Your task to perform on an android device: open app "Google Duo" Image 0: 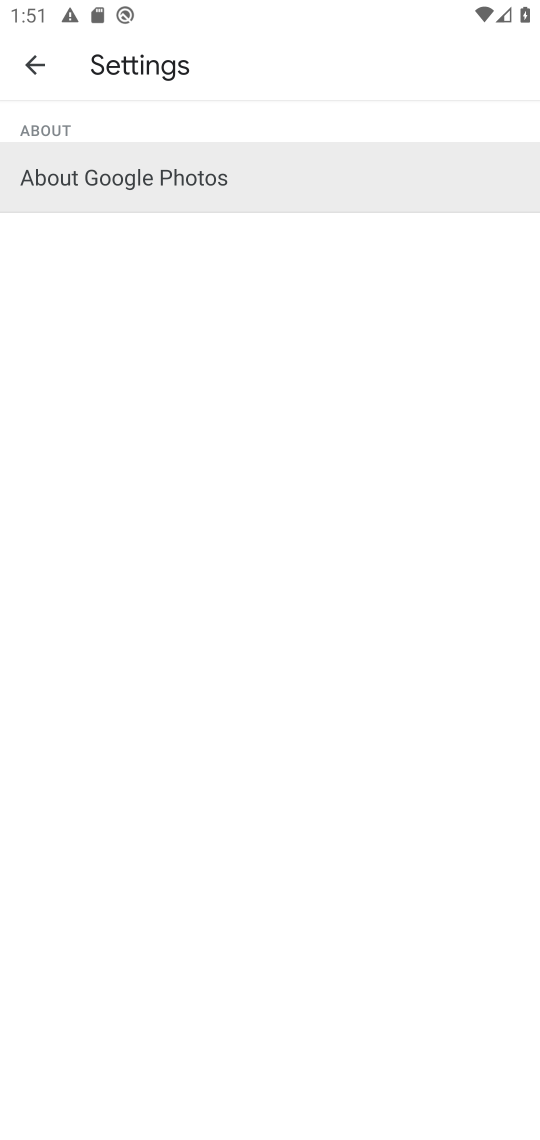
Step 0: press home button
Your task to perform on an android device: open app "Google Duo" Image 1: 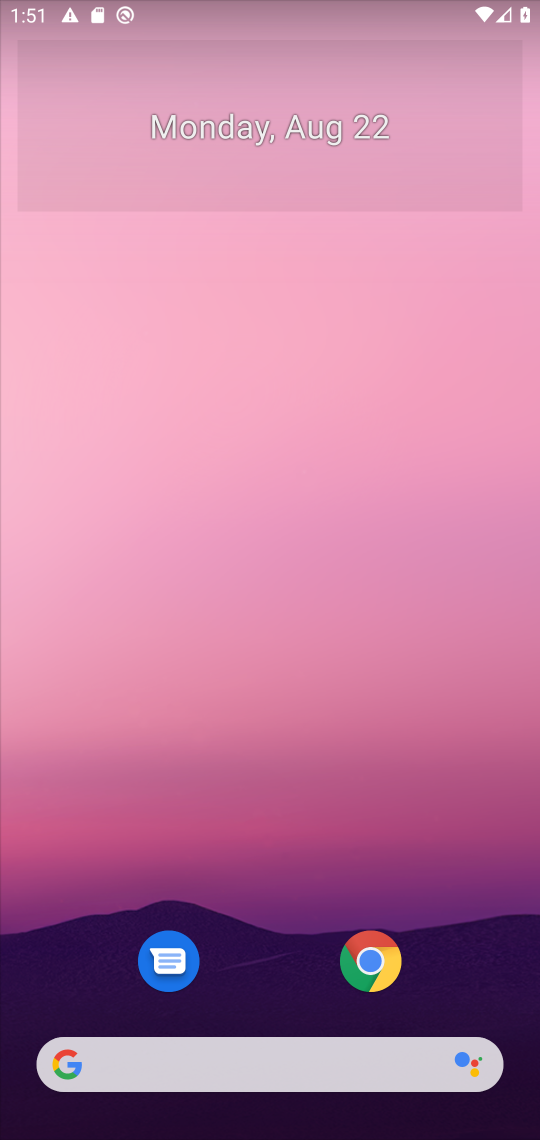
Step 1: drag from (478, 991) to (466, 123)
Your task to perform on an android device: open app "Google Duo" Image 2: 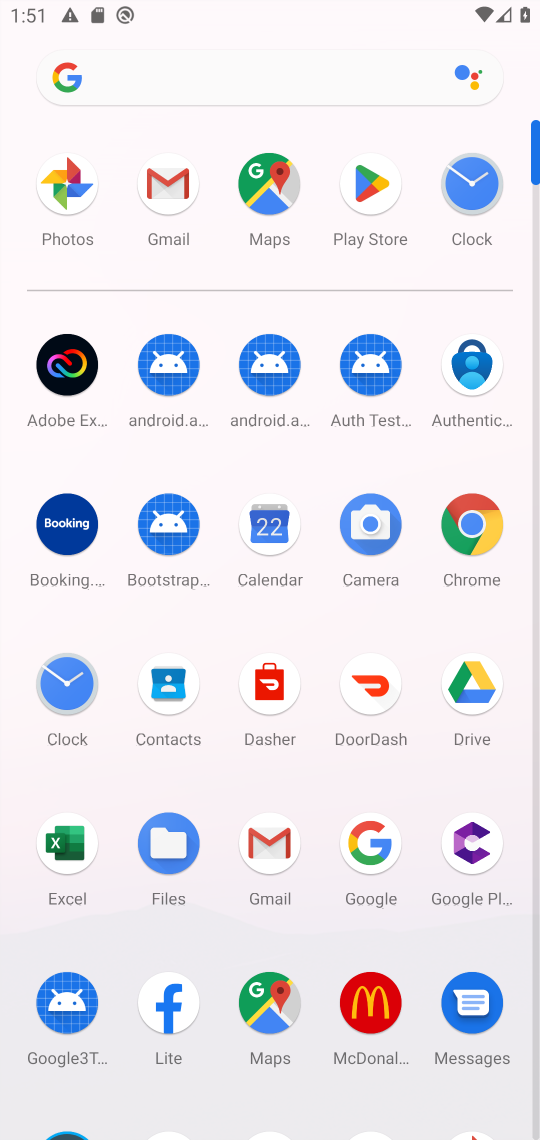
Step 2: click (375, 180)
Your task to perform on an android device: open app "Google Duo" Image 3: 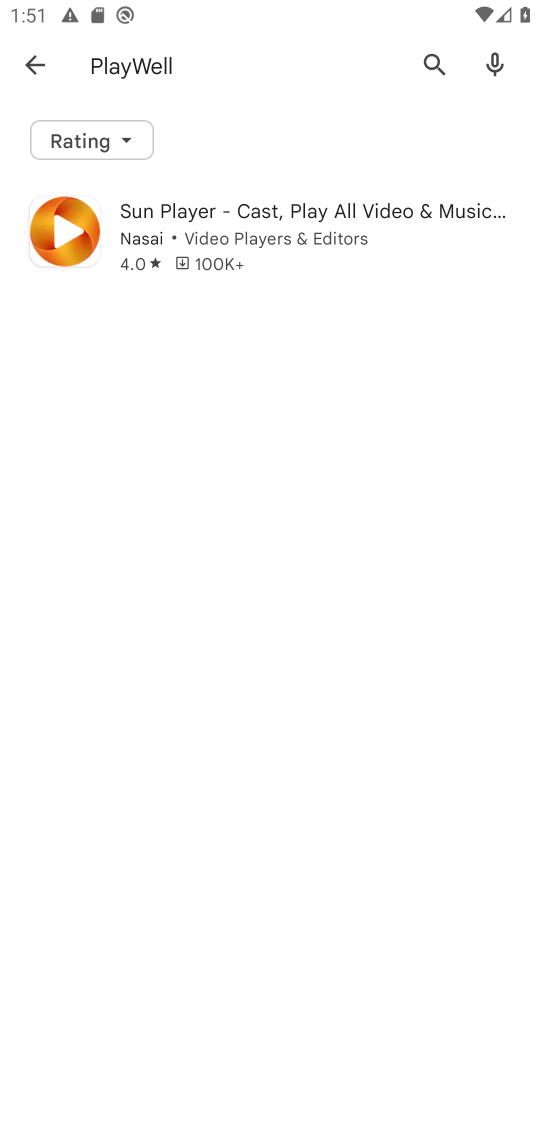
Step 3: press back button
Your task to perform on an android device: open app "Google Duo" Image 4: 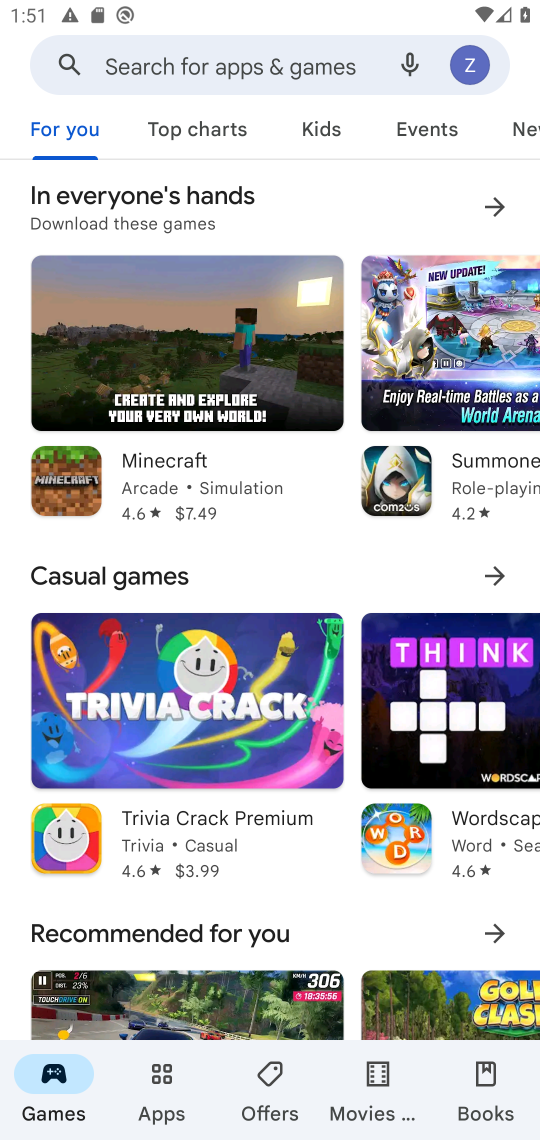
Step 4: click (243, 69)
Your task to perform on an android device: open app "Google Duo" Image 5: 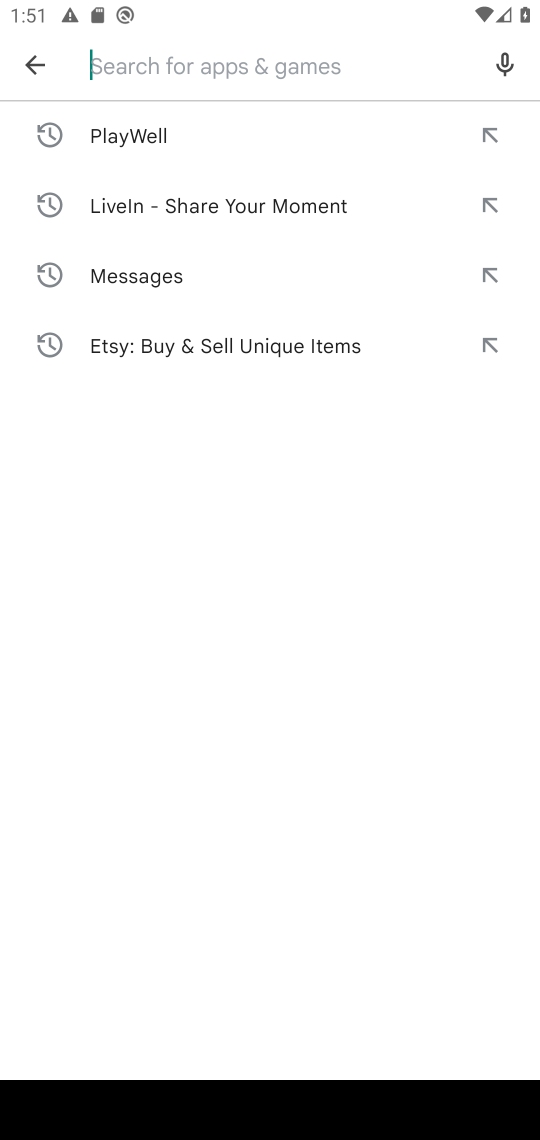
Step 5: type "Google Duo"
Your task to perform on an android device: open app "Google Duo" Image 6: 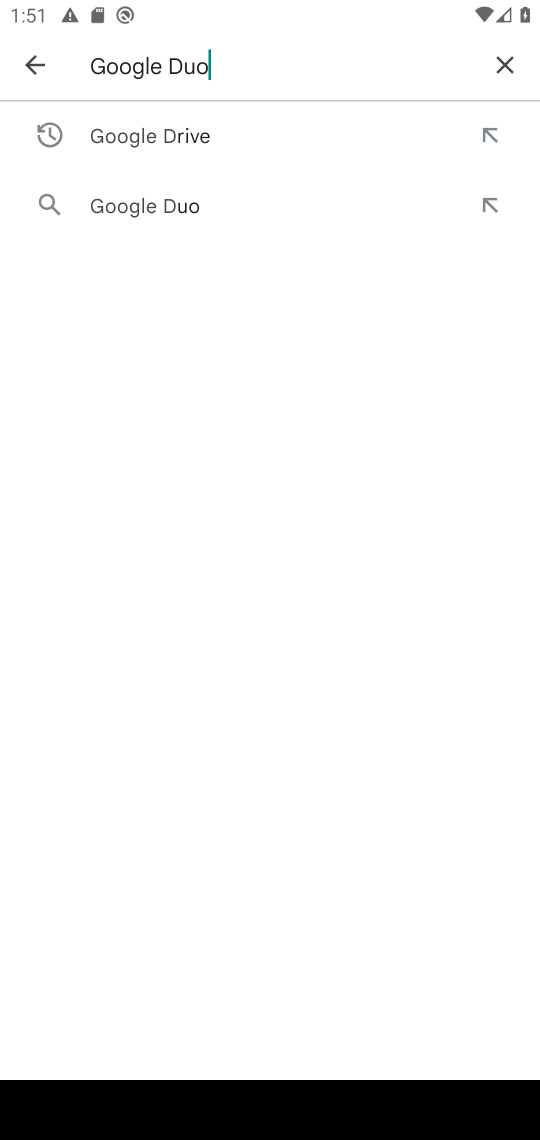
Step 6: press enter
Your task to perform on an android device: open app "Google Duo" Image 7: 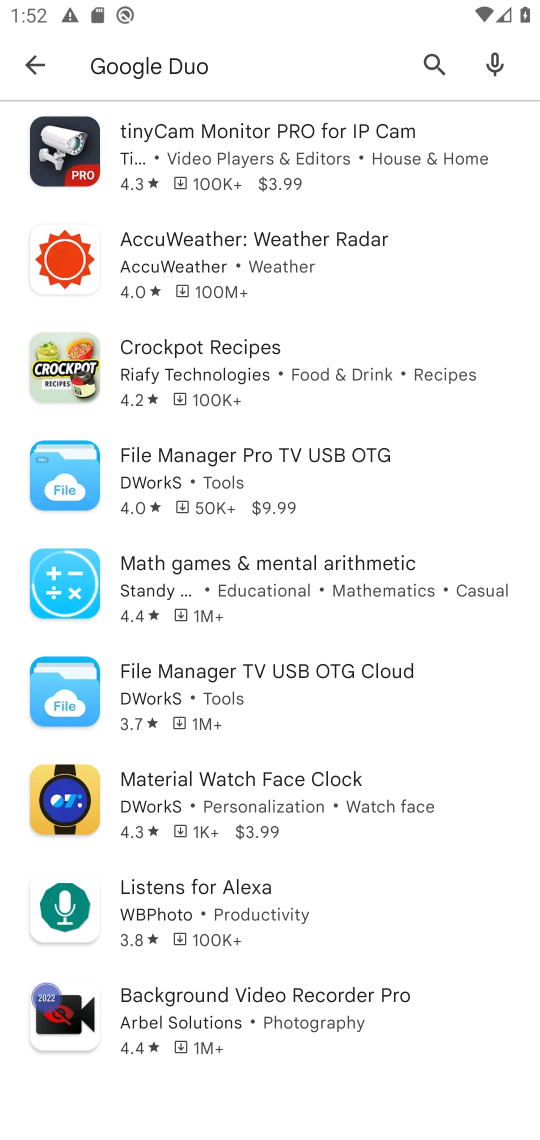
Step 7: task complete